Your task to perform on an android device: check out phone information Image 0: 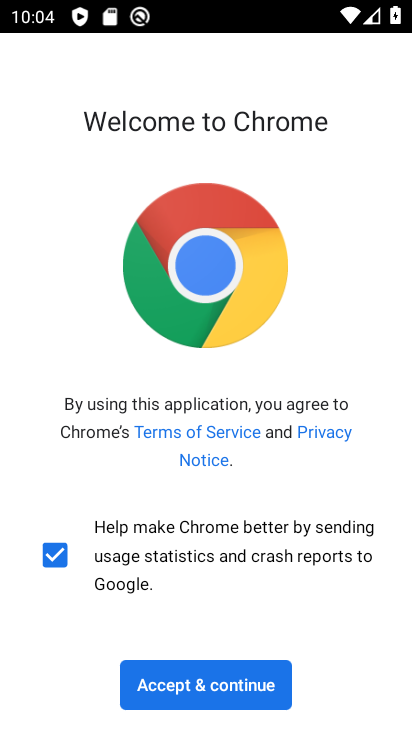
Step 0: press home button
Your task to perform on an android device: check out phone information Image 1: 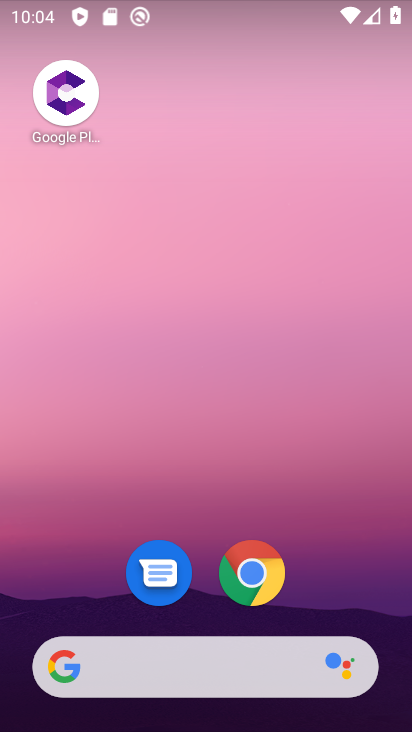
Step 1: drag from (74, 595) to (167, 211)
Your task to perform on an android device: check out phone information Image 2: 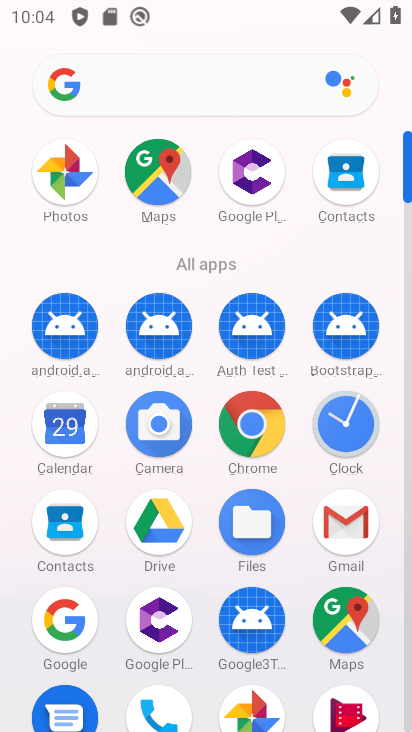
Step 2: drag from (134, 602) to (220, 361)
Your task to perform on an android device: check out phone information Image 3: 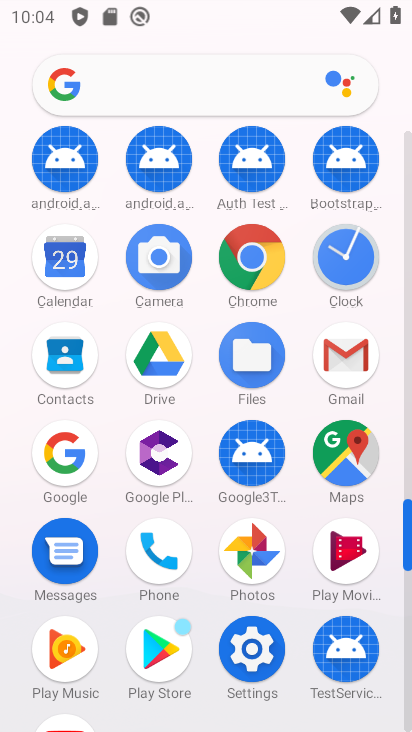
Step 3: click (273, 666)
Your task to perform on an android device: check out phone information Image 4: 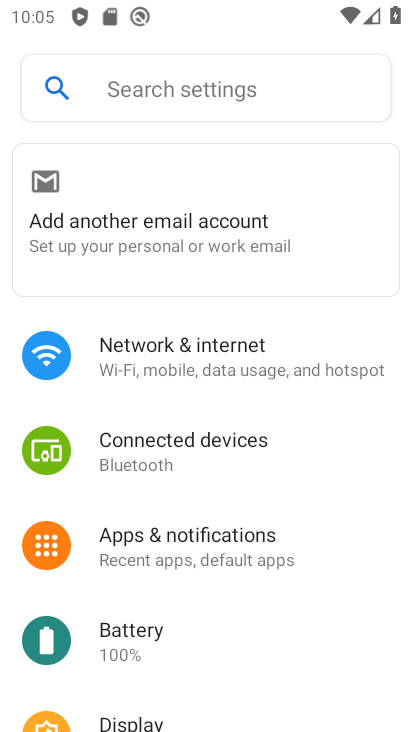
Step 4: drag from (207, 630) to (269, 335)
Your task to perform on an android device: check out phone information Image 5: 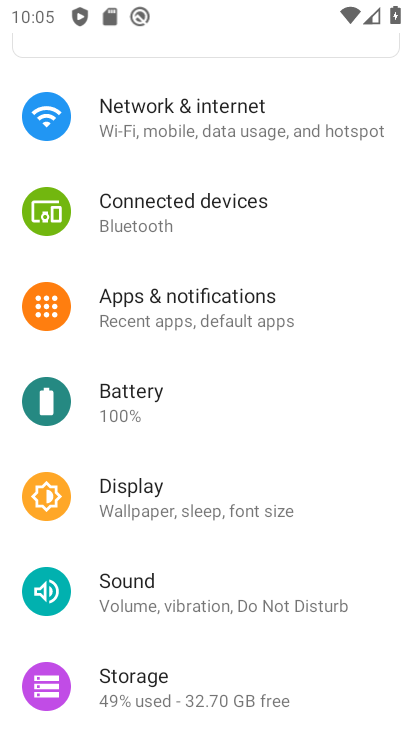
Step 5: drag from (106, 704) to (246, 202)
Your task to perform on an android device: check out phone information Image 6: 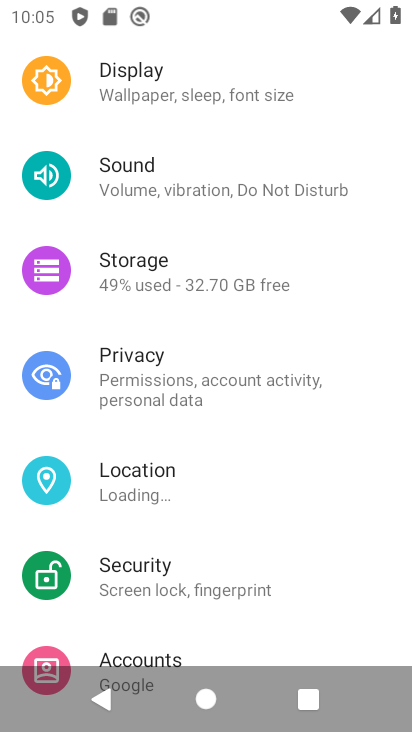
Step 6: drag from (194, 428) to (298, 125)
Your task to perform on an android device: check out phone information Image 7: 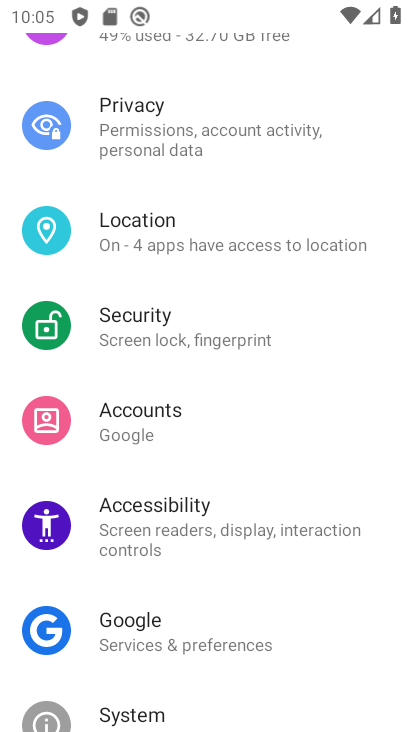
Step 7: drag from (198, 616) to (267, 131)
Your task to perform on an android device: check out phone information Image 8: 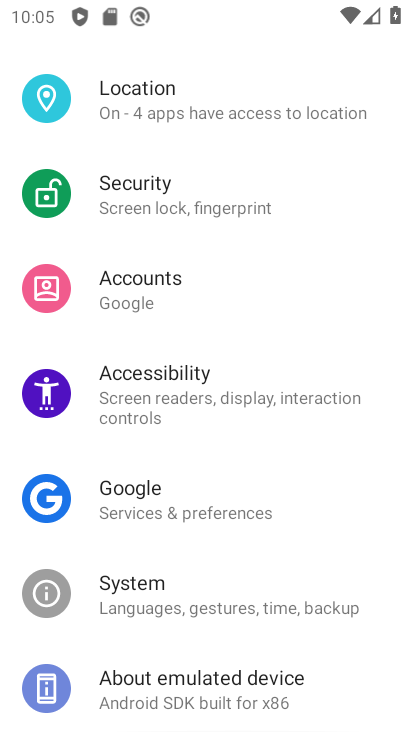
Step 8: click (164, 706)
Your task to perform on an android device: check out phone information Image 9: 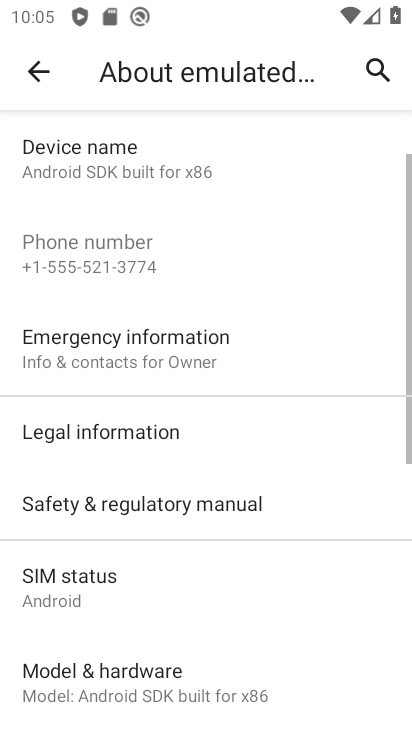
Step 9: task complete